Your task to perform on an android device: What's the weather going to be this weekend? Image 0: 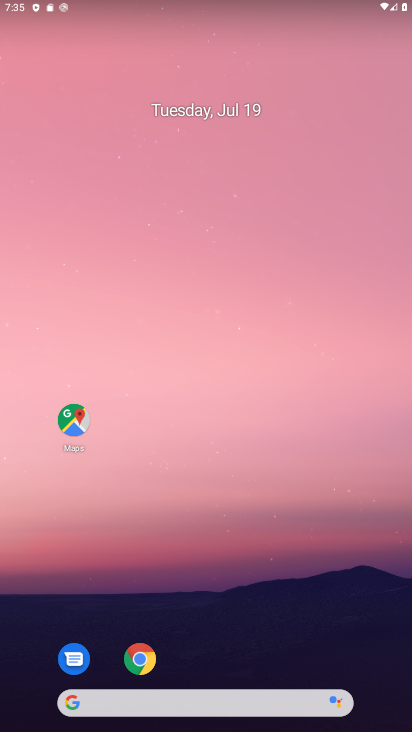
Step 0: drag from (0, 231) to (411, 241)
Your task to perform on an android device: What's the weather going to be this weekend? Image 1: 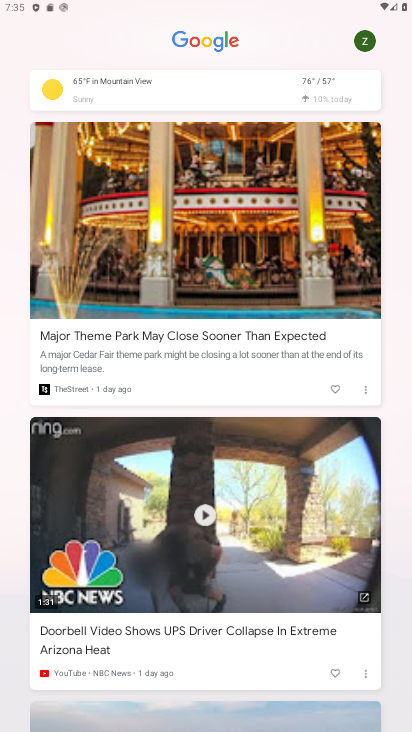
Step 1: click (324, 78)
Your task to perform on an android device: What's the weather going to be this weekend? Image 2: 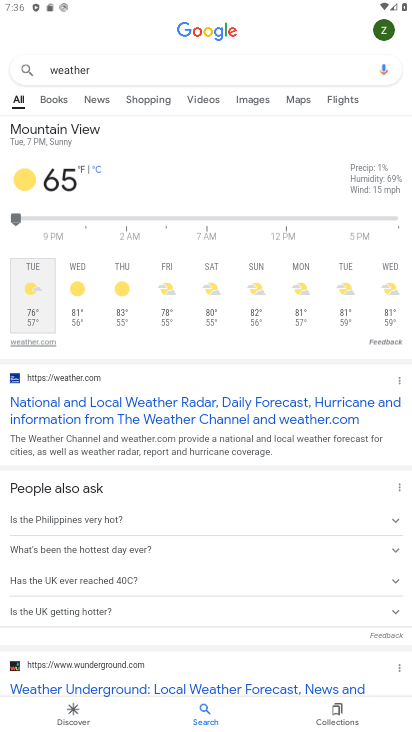
Step 2: task complete